Your task to perform on an android device: Is it going to rain tomorrow? Image 0: 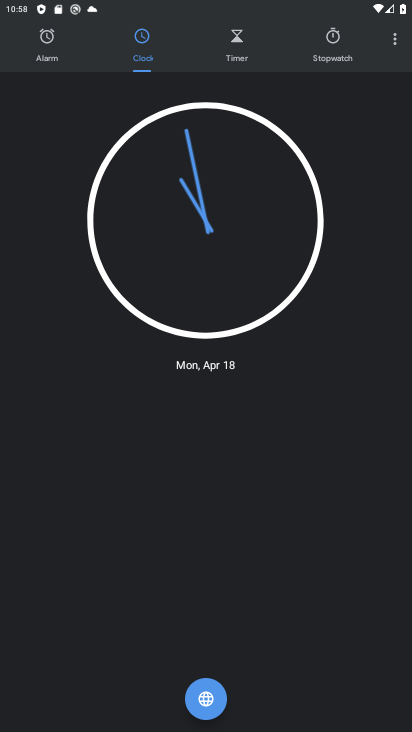
Step 0: press home button
Your task to perform on an android device: Is it going to rain tomorrow? Image 1: 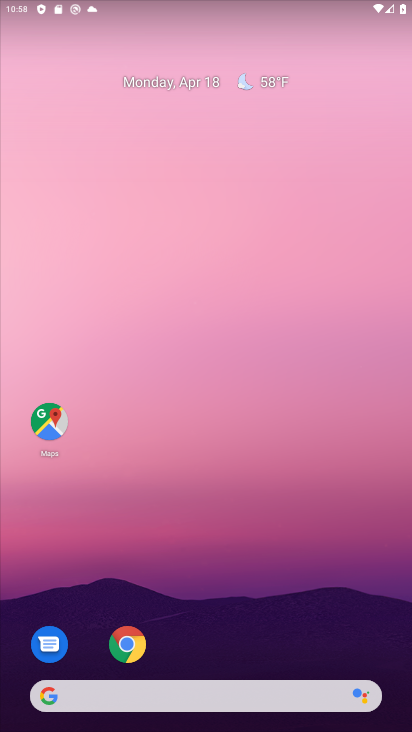
Step 1: click (134, 645)
Your task to perform on an android device: Is it going to rain tomorrow? Image 2: 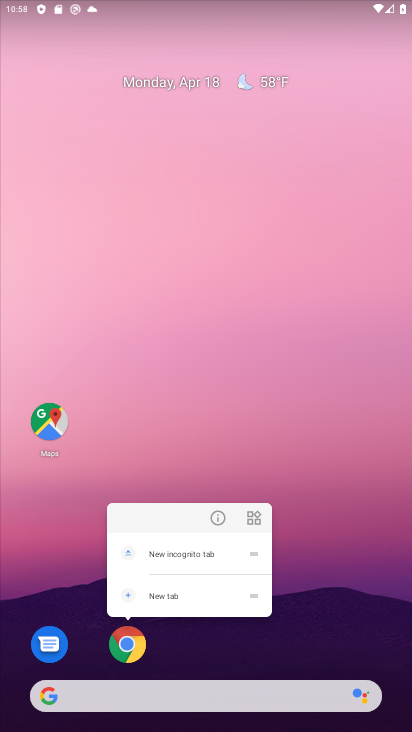
Step 2: click (126, 641)
Your task to perform on an android device: Is it going to rain tomorrow? Image 3: 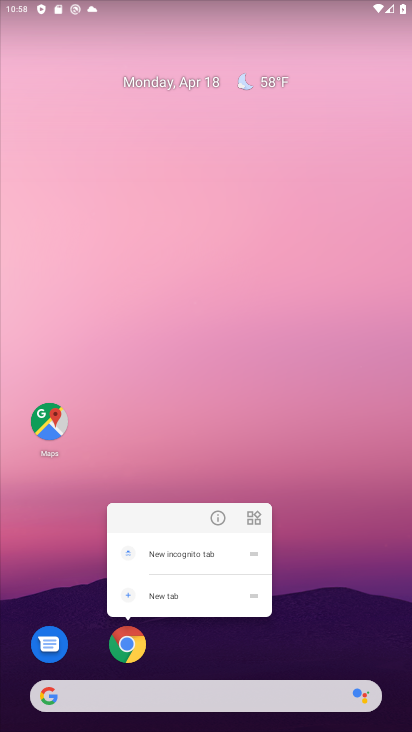
Step 3: click (125, 640)
Your task to perform on an android device: Is it going to rain tomorrow? Image 4: 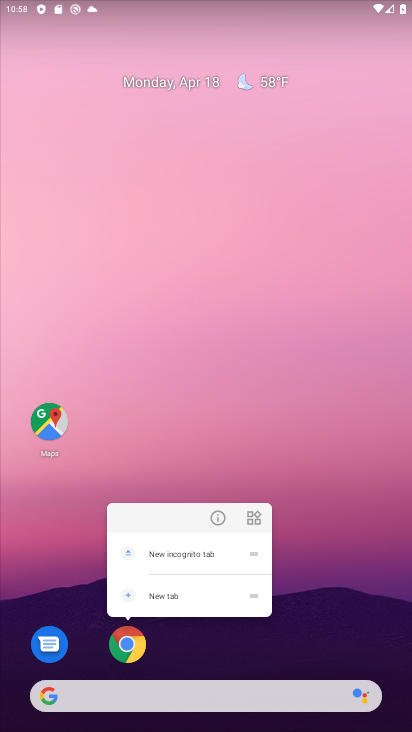
Step 4: click (213, 515)
Your task to perform on an android device: Is it going to rain tomorrow? Image 5: 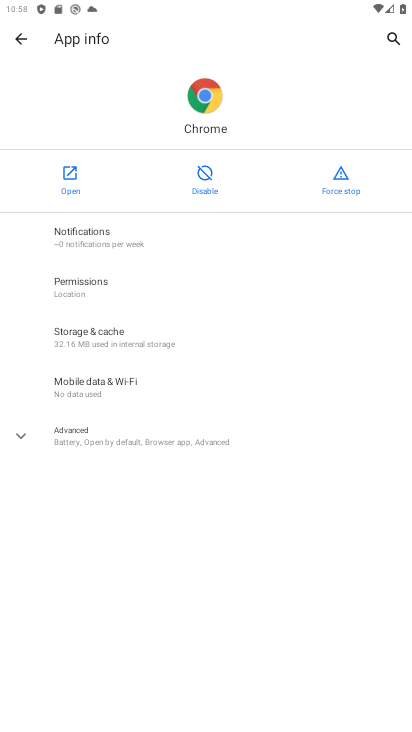
Step 5: click (76, 181)
Your task to perform on an android device: Is it going to rain tomorrow? Image 6: 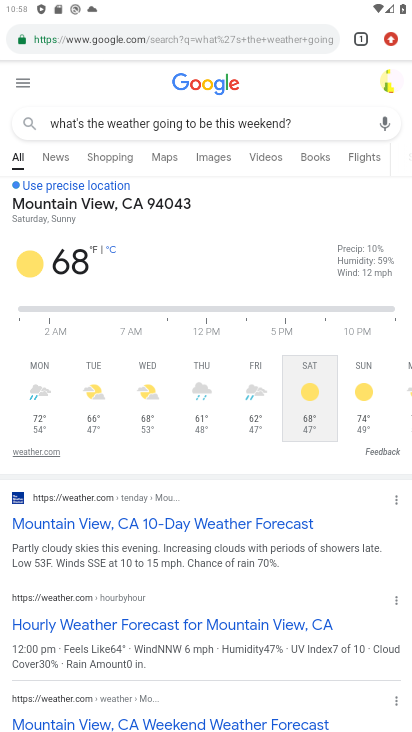
Step 6: click (75, 39)
Your task to perform on an android device: Is it going to rain tomorrow? Image 7: 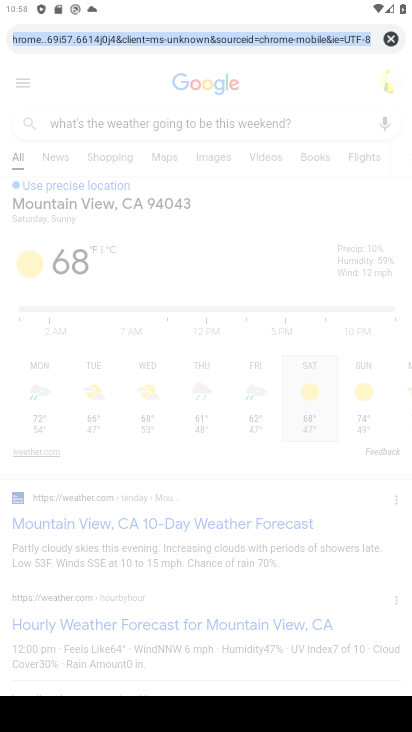
Step 7: type "is it going to rain tomorrow?"
Your task to perform on an android device: Is it going to rain tomorrow? Image 8: 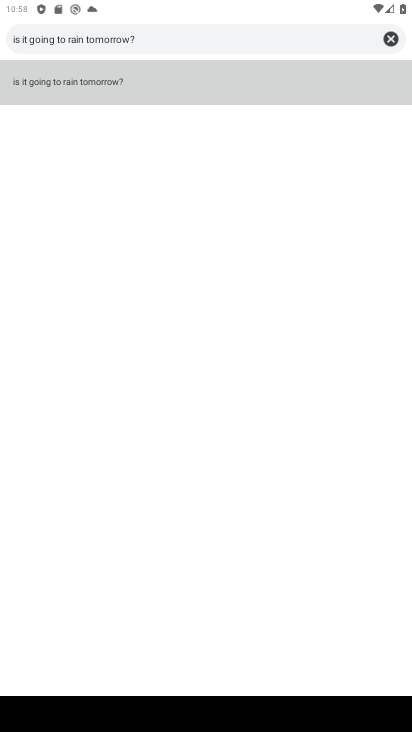
Step 8: click (201, 90)
Your task to perform on an android device: Is it going to rain tomorrow? Image 9: 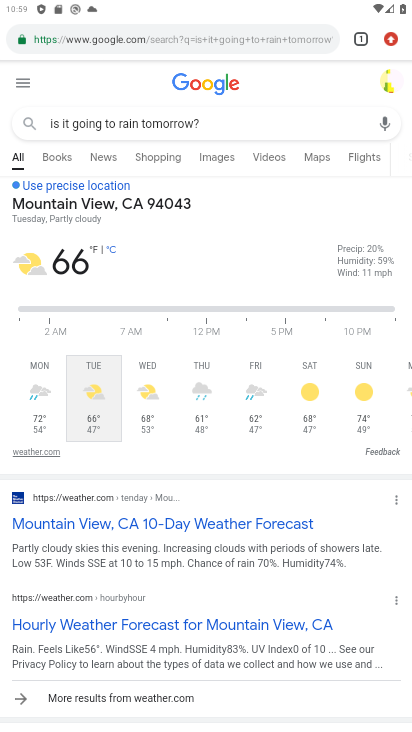
Step 9: task complete